Your task to perform on an android device: show emergency info Image 0: 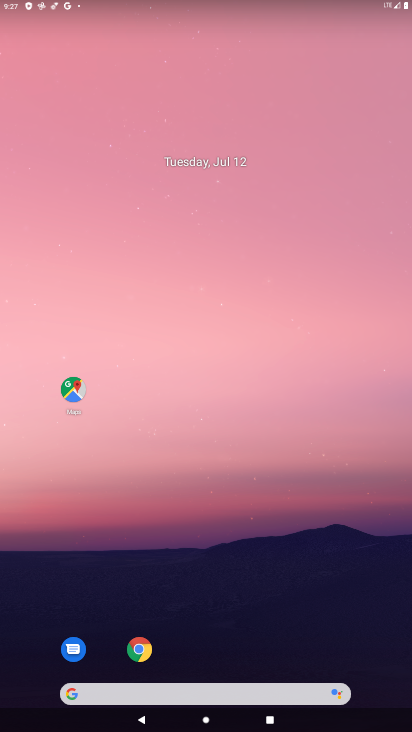
Step 0: drag from (290, 636) to (295, 69)
Your task to perform on an android device: show emergency info Image 1: 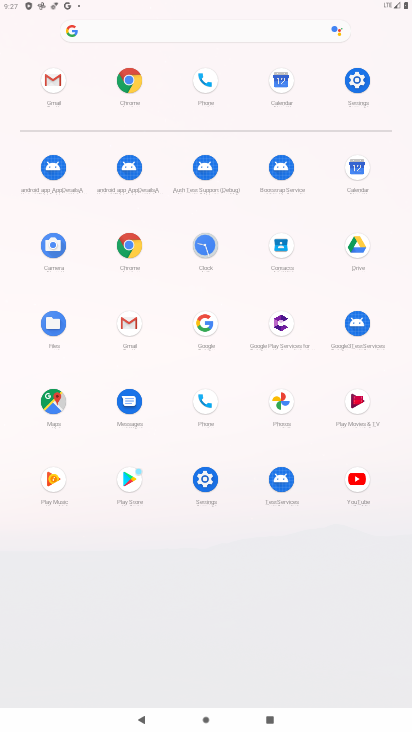
Step 1: click (332, 82)
Your task to perform on an android device: show emergency info Image 2: 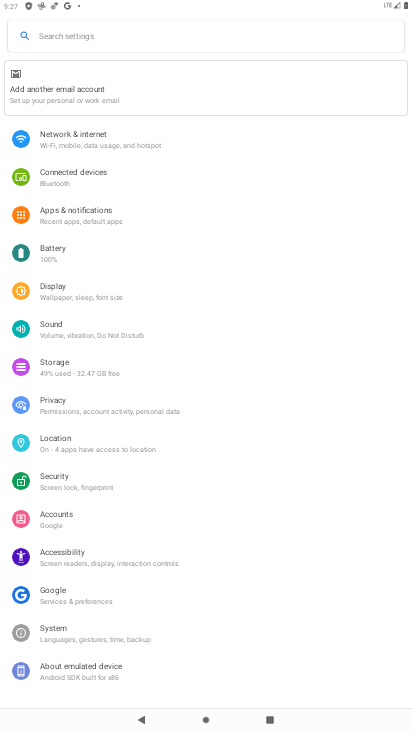
Step 2: click (182, 669)
Your task to perform on an android device: show emergency info Image 3: 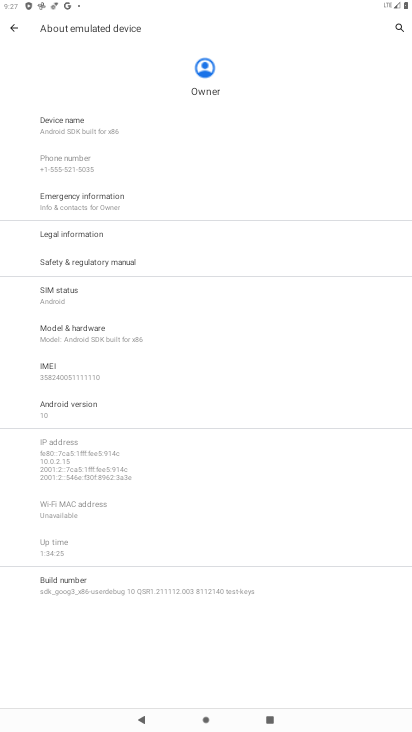
Step 3: click (152, 202)
Your task to perform on an android device: show emergency info Image 4: 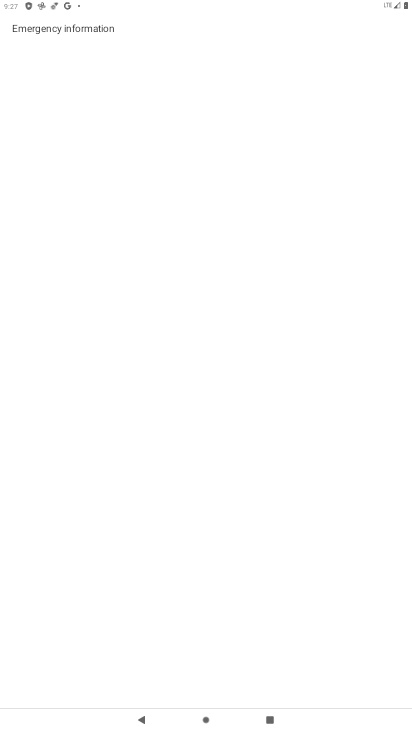
Step 4: task complete